Your task to perform on an android device: Open my contact list Image 0: 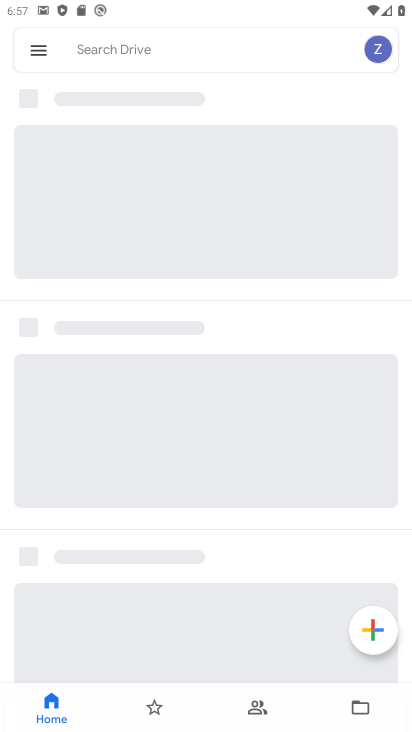
Step 0: press home button
Your task to perform on an android device: Open my contact list Image 1: 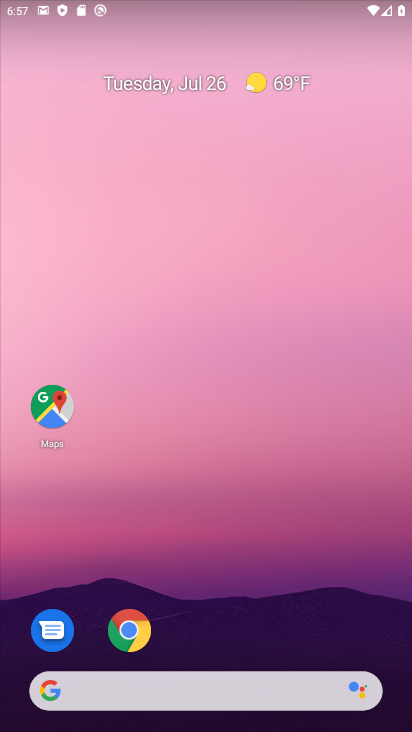
Step 1: drag from (264, 614) to (291, 233)
Your task to perform on an android device: Open my contact list Image 2: 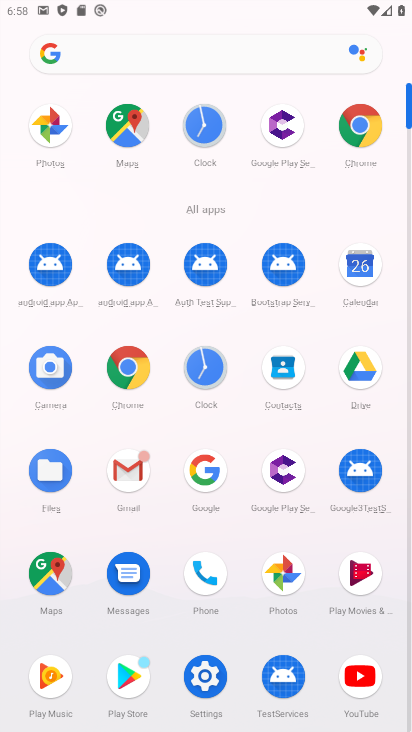
Step 2: click (298, 366)
Your task to perform on an android device: Open my contact list Image 3: 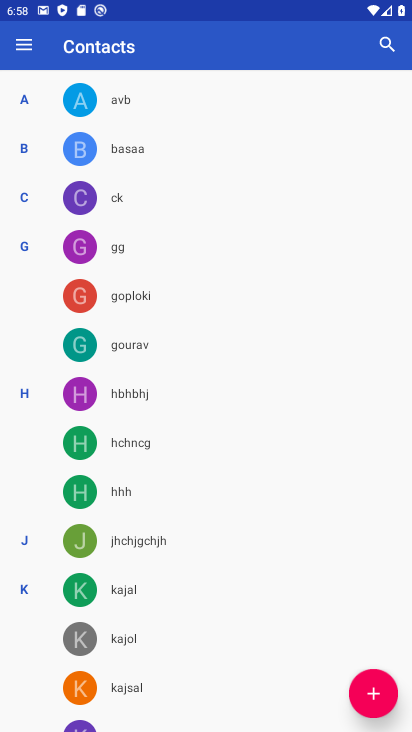
Step 3: click (384, 688)
Your task to perform on an android device: Open my contact list Image 4: 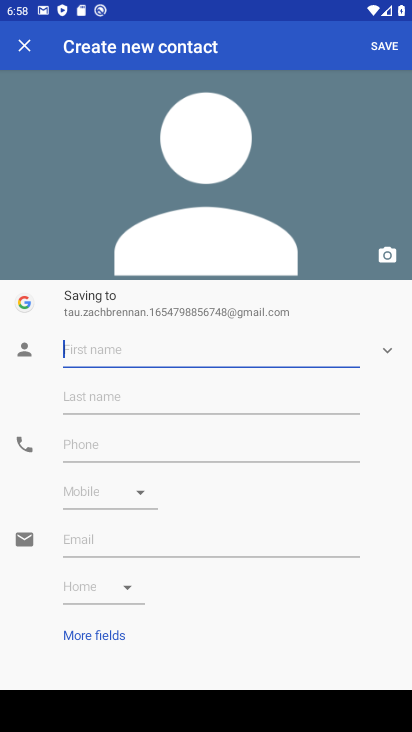
Step 4: click (236, 353)
Your task to perform on an android device: Open my contact list Image 5: 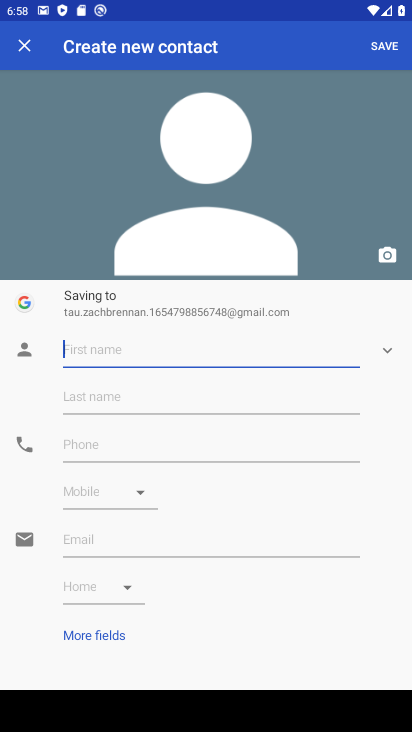
Step 5: type "gdgdg"
Your task to perform on an android device: Open my contact list Image 6: 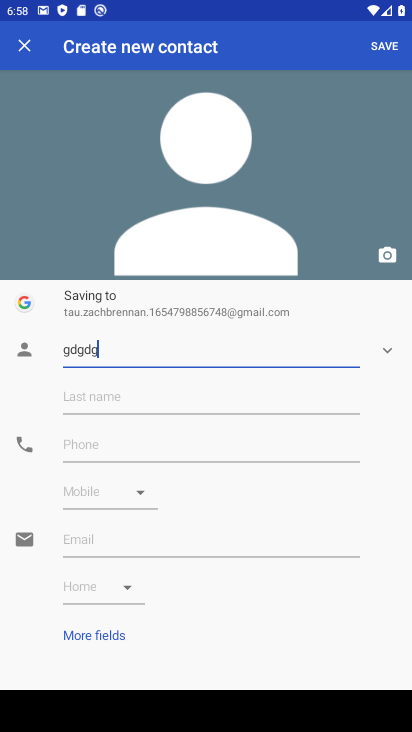
Step 6: type ""
Your task to perform on an android device: Open my contact list Image 7: 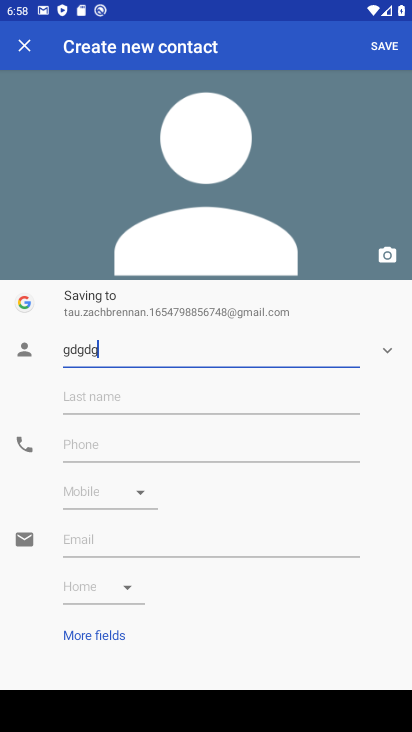
Step 7: click (394, 41)
Your task to perform on an android device: Open my contact list Image 8: 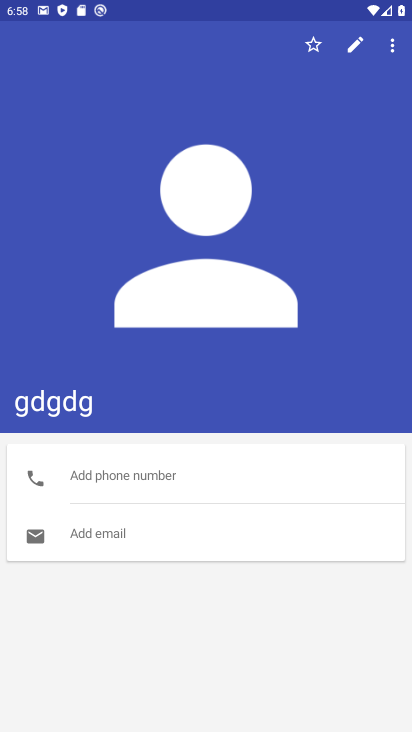
Step 8: task complete